Your task to perform on an android device: Search for a runner rug on Crate & Barrel. Image 0: 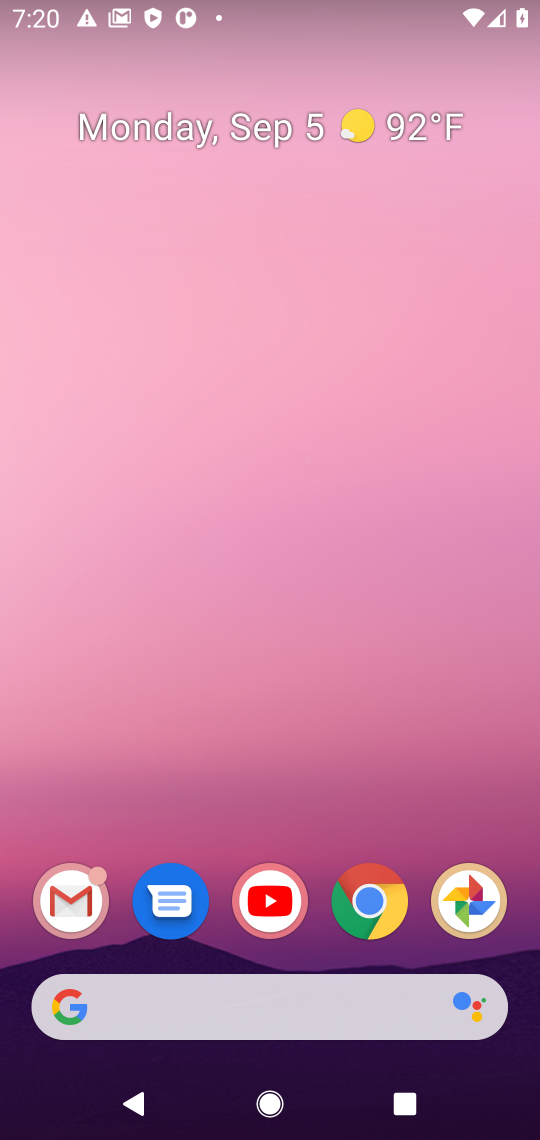
Step 0: click (364, 920)
Your task to perform on an android device: Search for a runner rug on Crate & Barrel. Image 1: 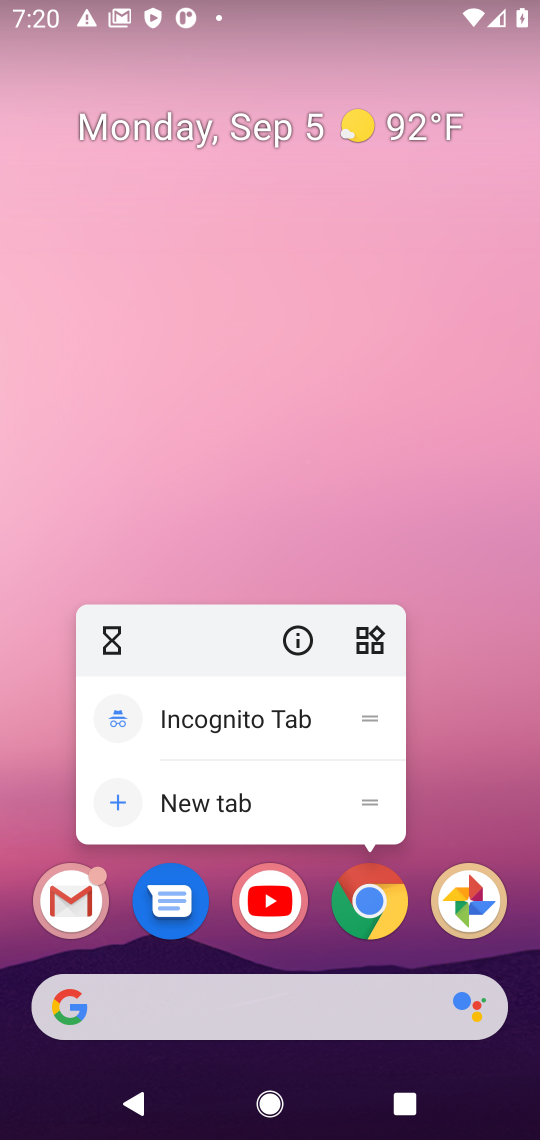
Step 1: click (364, 920)
Your task to perform on an android device: Search for a runner rug on Crate & Barrel. Image 2: 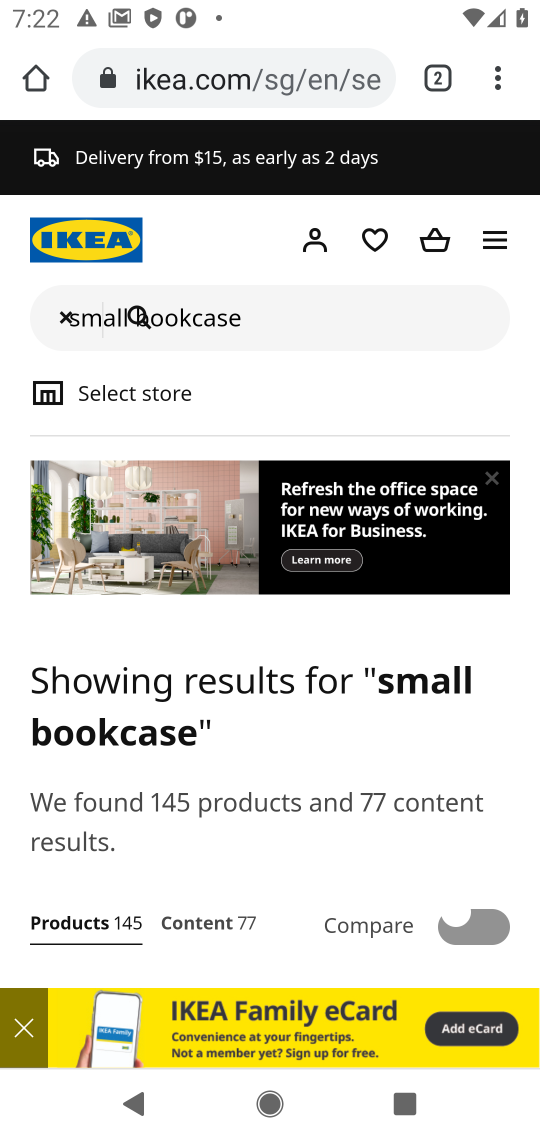
Step 2: click (270, 94)
Your task to perform on an android device: Search for a runner rug on Crate & Barrel. Image 3: 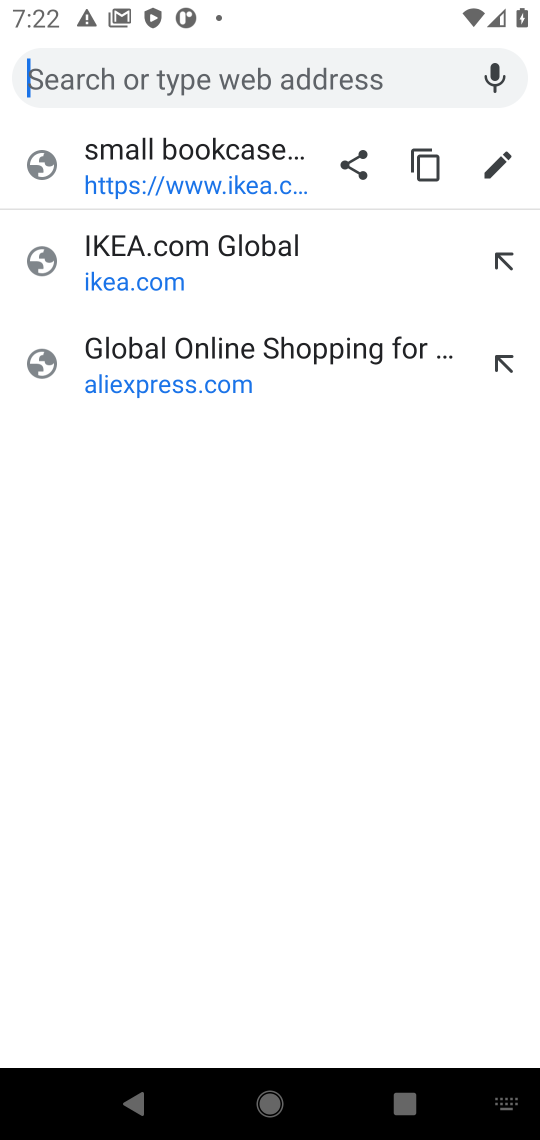
Step 3: type "crate&barrel"
Your task to perform on an android device: Search for a runner rug on Crate & Barrel. Image 4: 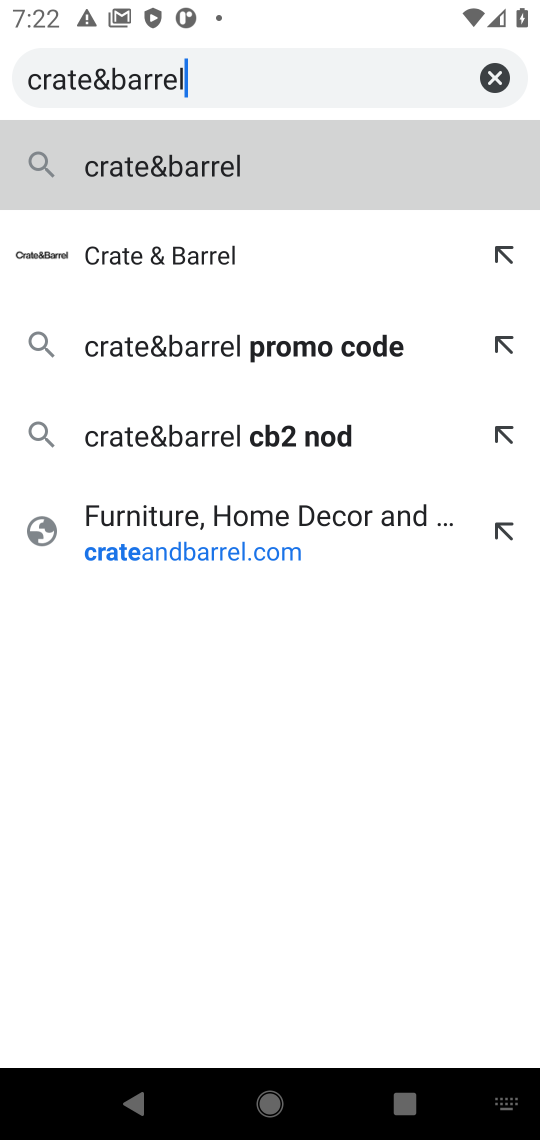
Step 4: click (166, 290)
Your task to perform on an android device: Search for a runner rug on Crate & Barrel. Image 5: 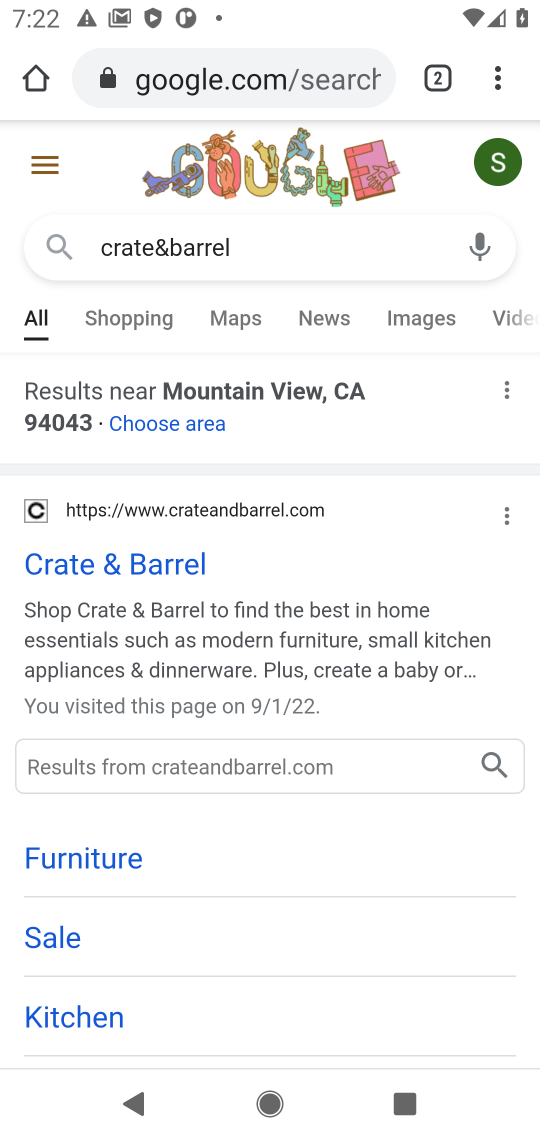
Step 5: click (154, 576)
Your task to perform on an android device: Search for a runner rug on Crate & Barrel. Image 6: 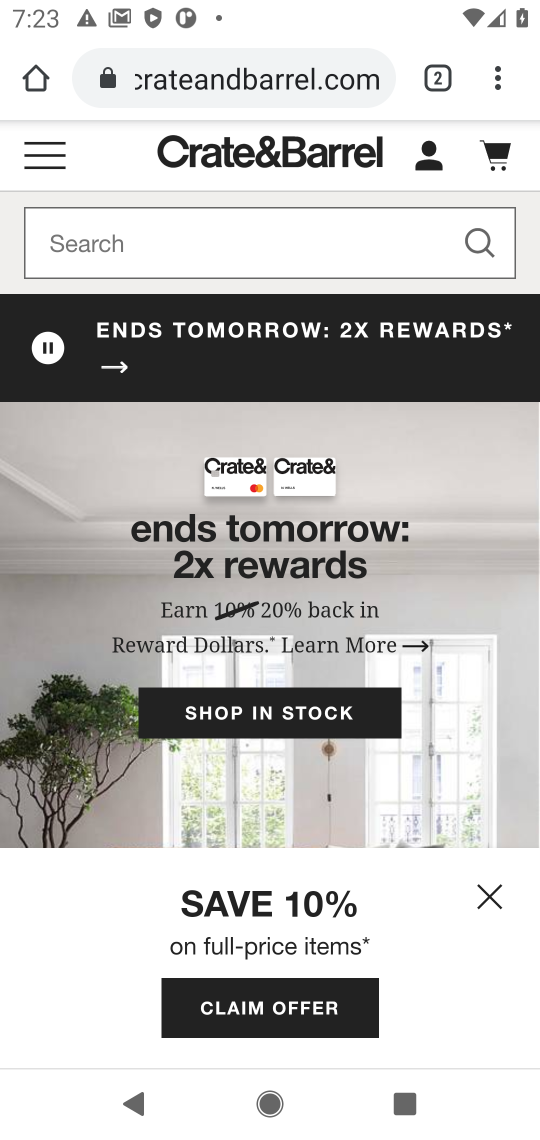
Step 6: click (268, 257)
Your task to perform on an android device: Search for a runner rug on Crate & Barrel. Image 7: 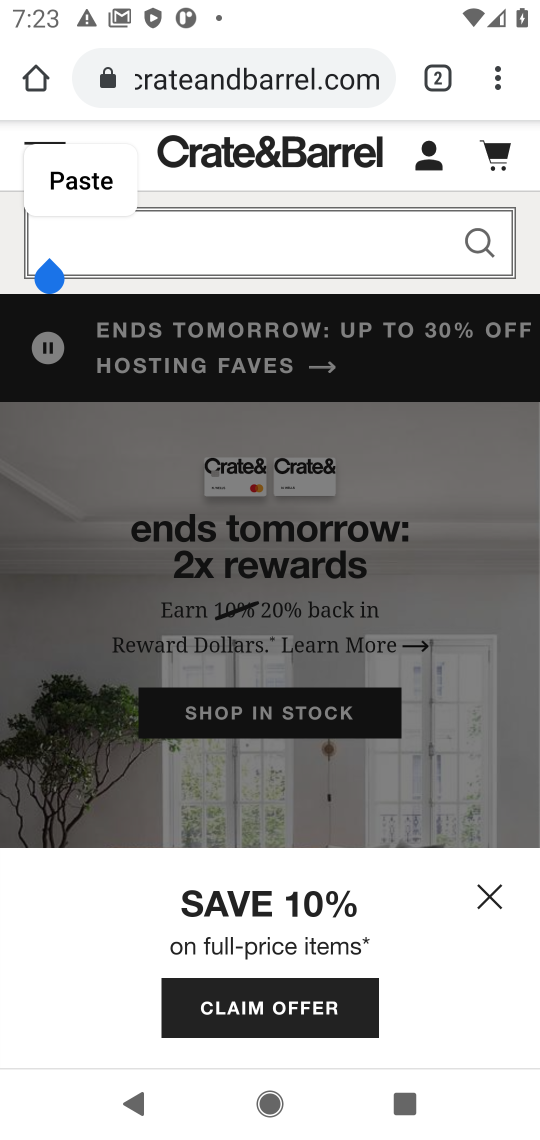
Step 7: type "runner rug"
Your task to perform on an android device: Search for a runner rug on Crate & Barrel. Image 8: 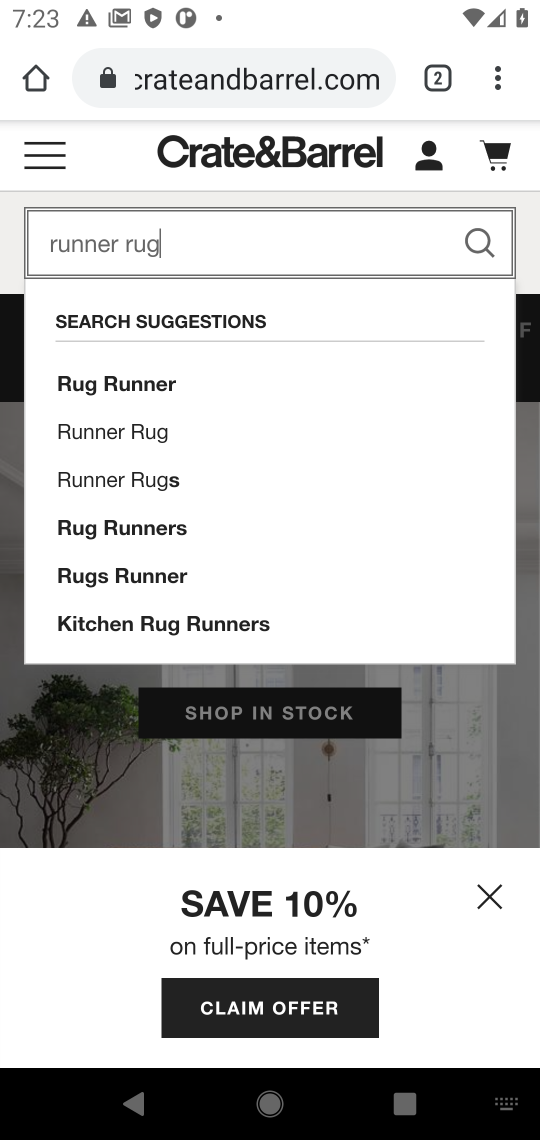
Step 8: click (196, 355)
Your task to perform on an android device: Search for a runner rug on Crate & Barrel. Image 9: 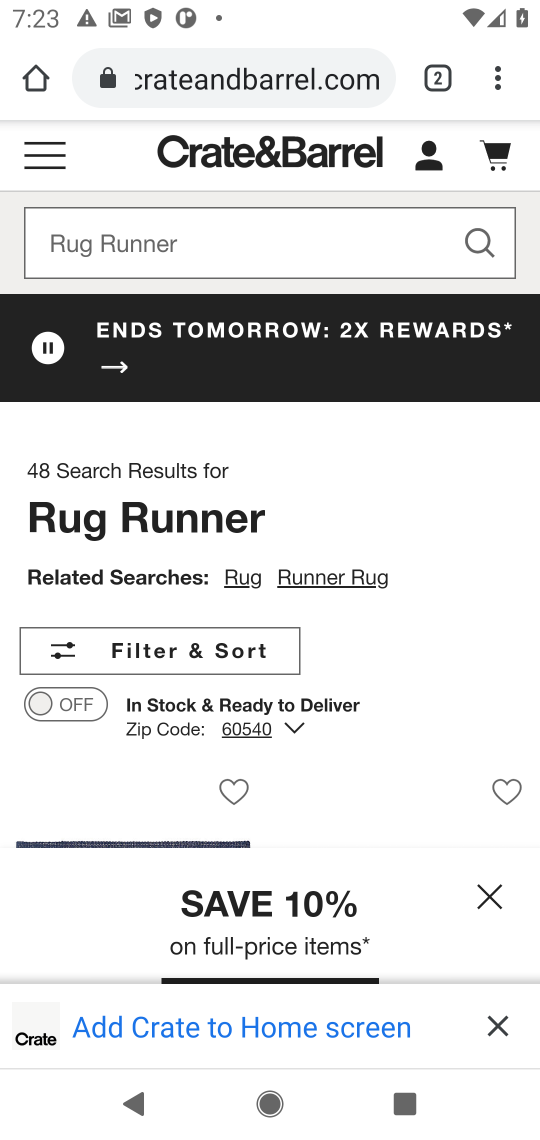
Step 9: task complete